Your task to perform on an android device: stop showing notifications on the lock screen Image 0: 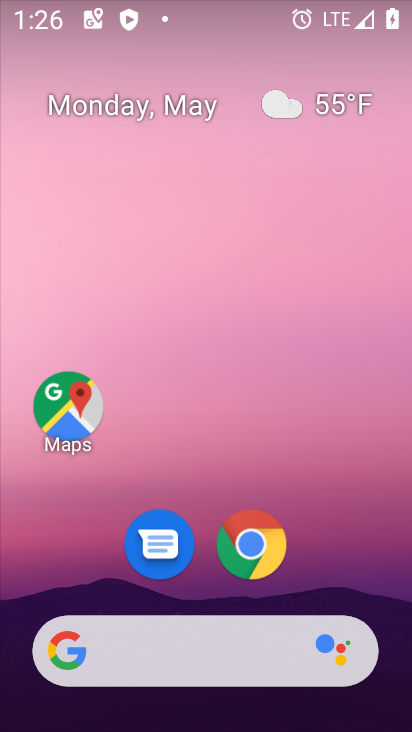
Step 0: drag from (395, 642) to (346, 276)
Your task to perform on an android device: stop showing notifications on the lock screen Image 1: 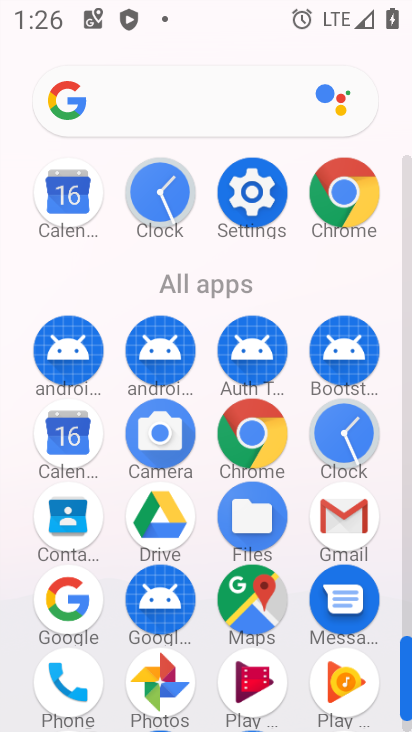
Step 1: click (408, 613)
Your task to perform on an android device: stop showing notifications on the lock screen Image 2: 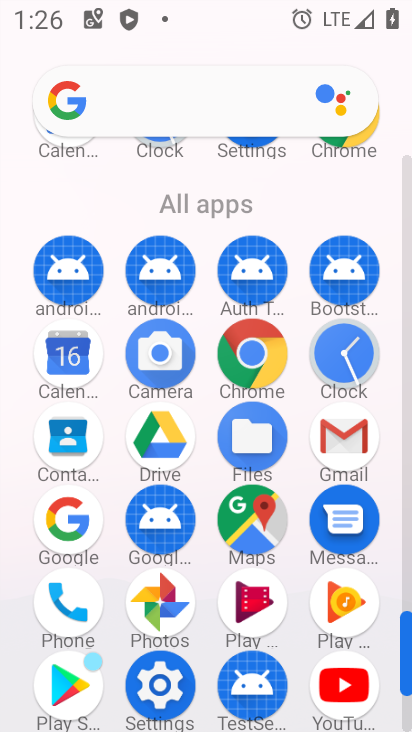
Step 2: click (161, 687)
Your task to perform on an android device: stop showing notifications on the lock screen Image 3: 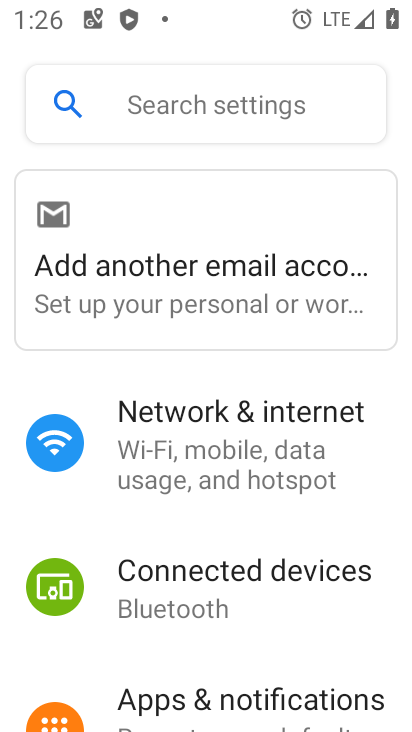
Step 3: click (268, 701)
Your task to perform on an android device: stop showing notifications on the lock screen Image 4: 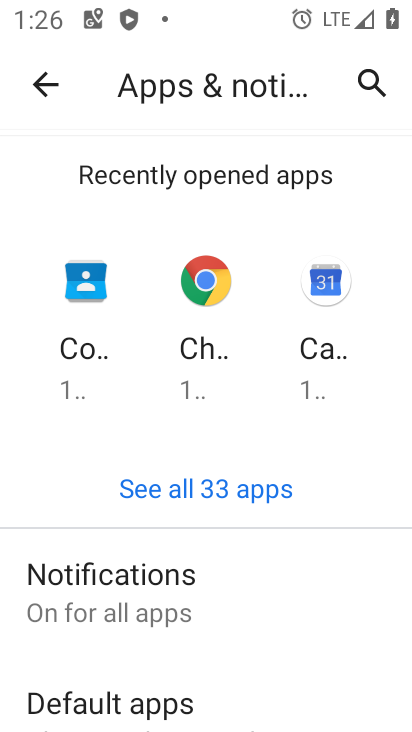
Step 4: click (89, 564)
Your task to perform on an android device: stop showing notifications on the lock screen Image 5: 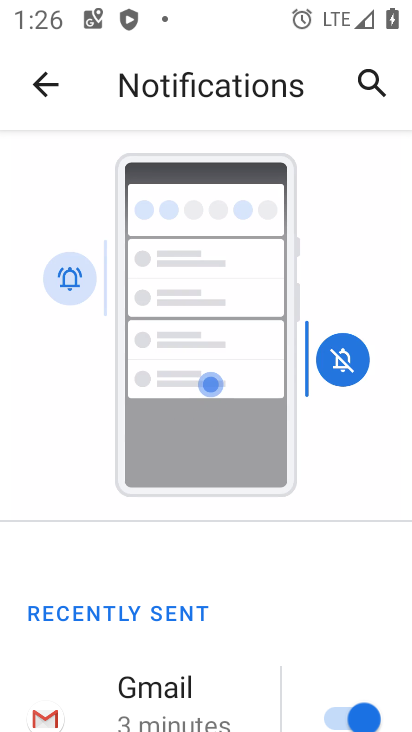
Step 5: drag from (278, 685) to (247, 213)
Your task to perform on an android device: stop showing notifications on the lock screen Image 6: 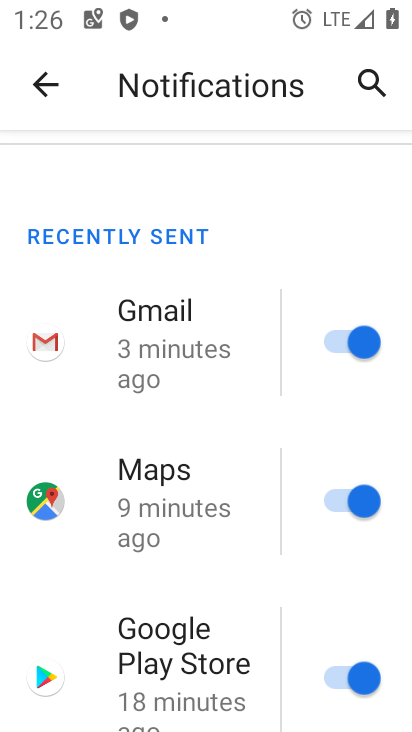
Step 6: drag from (276, 686) to (262, 27)
Your task to perform on an android device: stop showing notifications on the lock screen Image 7: 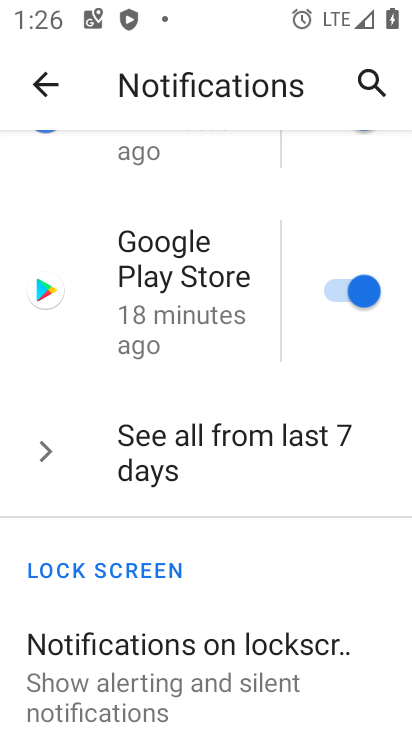
Step 7: drag from (290, 661) to (295, 228)
Your task to perform on an android device: stop showing notifications on the lock screen Image 8: 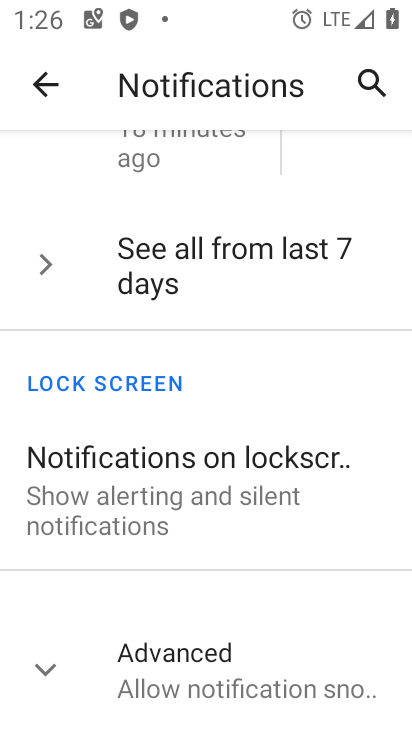
Step 8: click (85, 493)
Your task to perform on an android device: stop showing notifications on the lock screen Image 9: 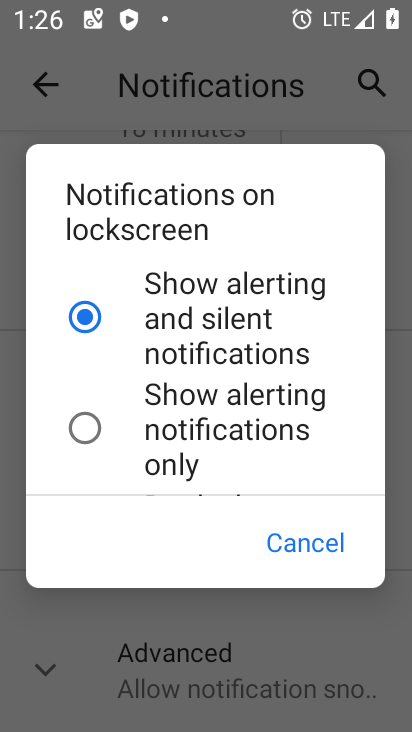
Step 9: drag from (156, 432) to (162, 184)
Your task to perform on an android device: stop showing notifications on the lock screen Image 10: 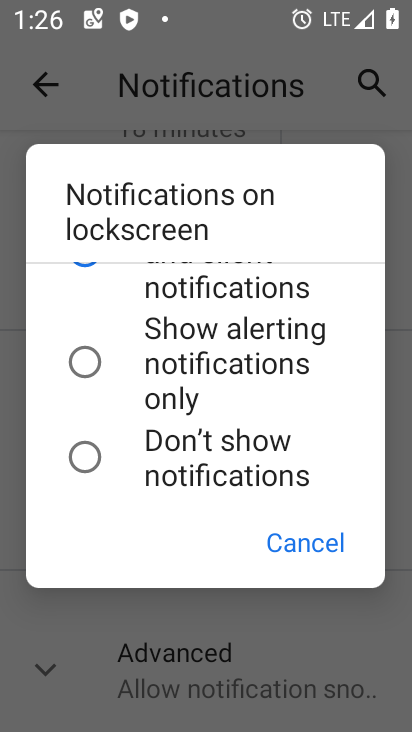
Step 10: click (86, 461)
Your task to perform on an android device: stop showing notifications on the lock screen Image 11: 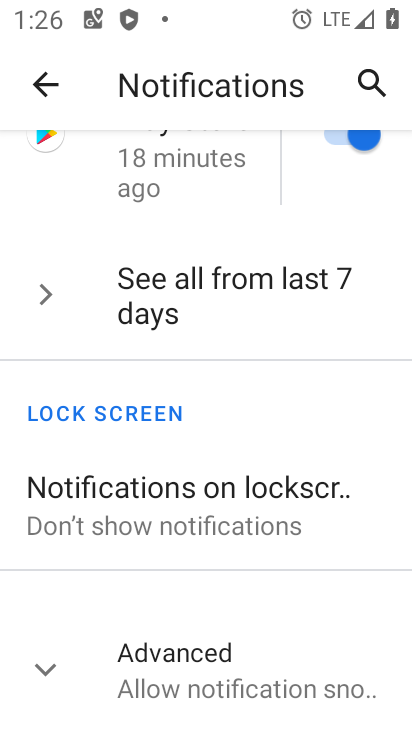
Step 11: task complete